Your task to perform on an android device: turn on airplane mode Image 0: 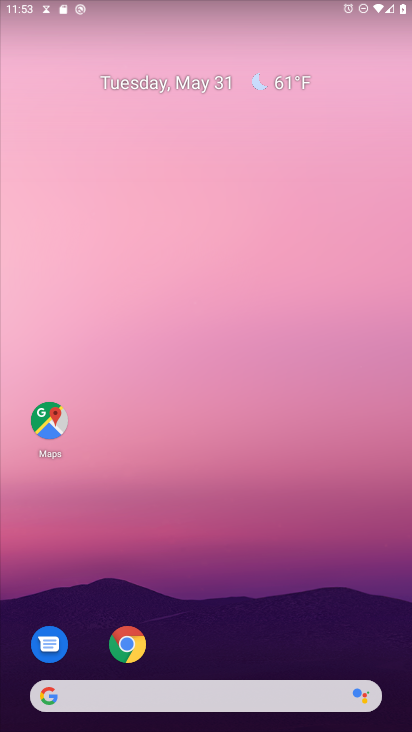
Step 0: drag from (366, 9) to (366, 400)
Your task to perform on an android device: turn on airplane mode Image 1: 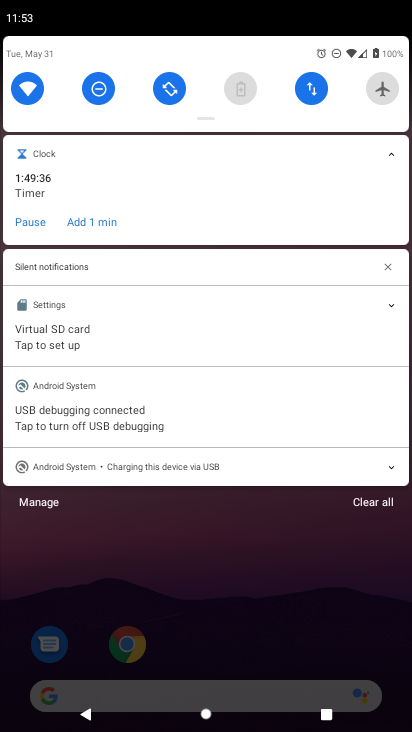
Step 1: click (378, 98)
Your task to perform on an android device: turn on airplane mode Image 2: 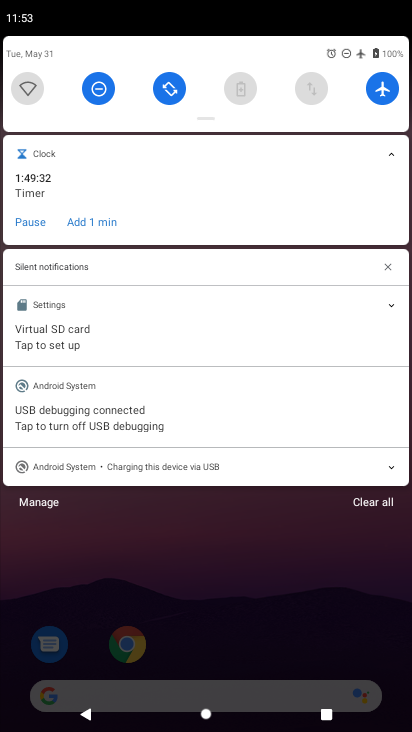
Step 2: task complete